Your task to perform on an android device: allow cookies in the chrome app Image 0: 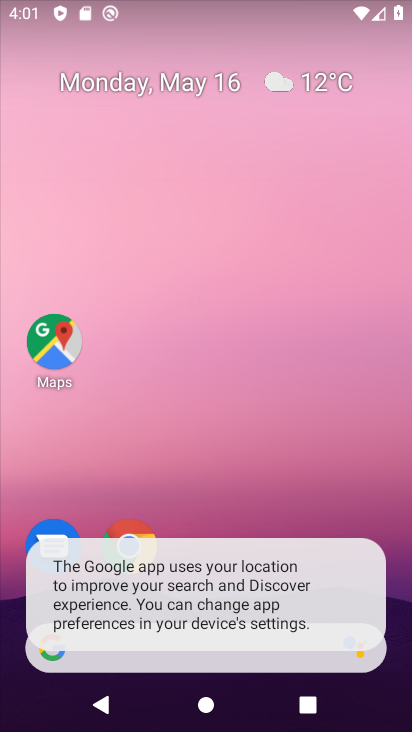
Step 0: drag from (190, 555) to (314, 65)
Your task to perform on an android device: allow cookies in the chrome app Image 1: 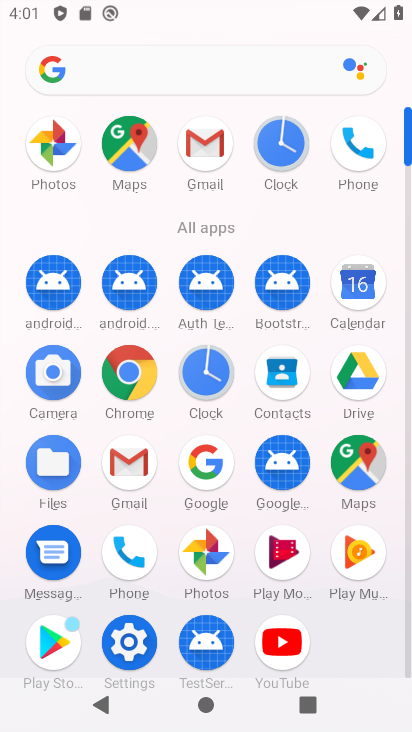
Step 1: click (144, 376)
Your task to perform on an android device: allow cookies in the chrome app Image 2: 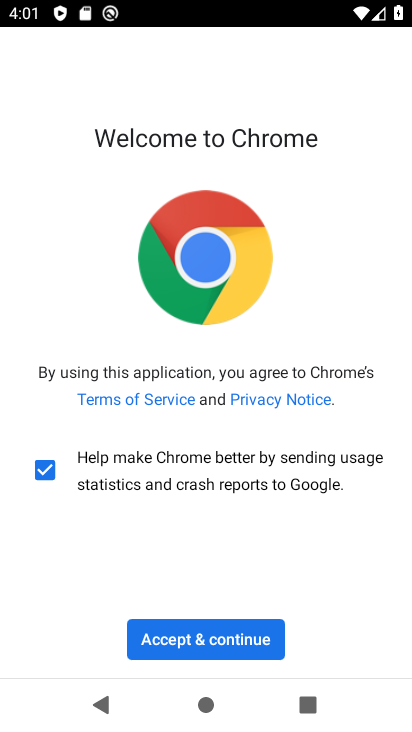
Step 2: click (218, 648)
Your task to perform on an android device: allow cookies in the chrome app Image 3: 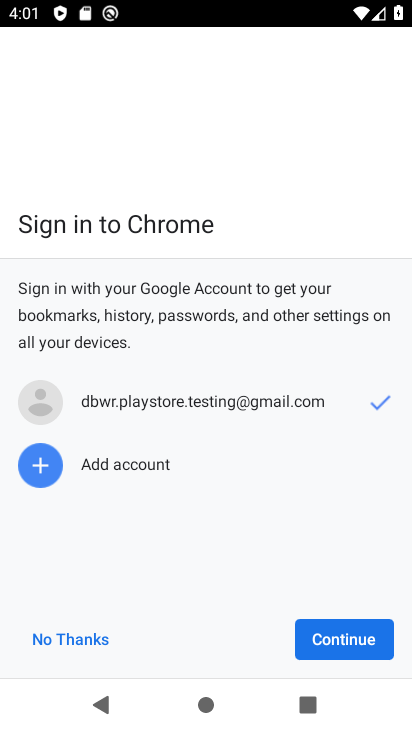
Step 3: click (333, 652)
Your task to perform on an android device: allow cookies in the chrome app Image 4: 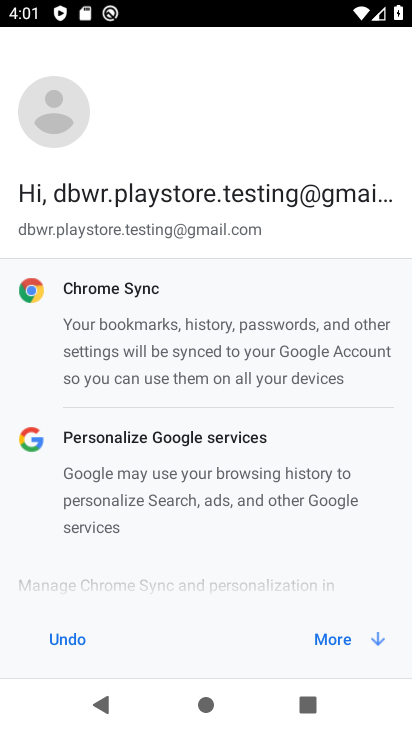
Step 4: click (332, 651)
Your task to perform on an android device: allow cookies in the chrome app Image 5: 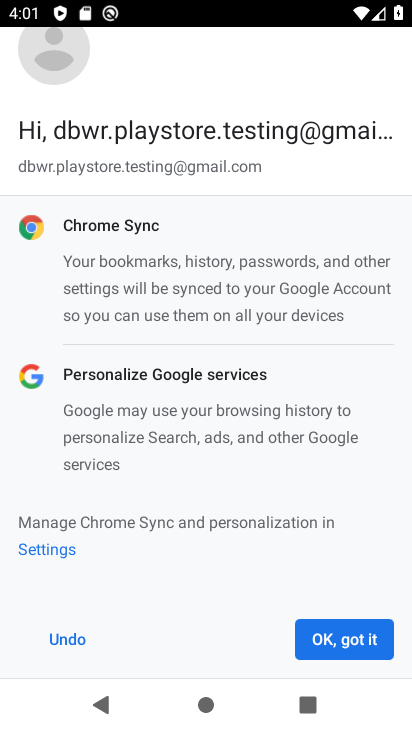
Step 5: click (332, 651)
Your task to perform on an android device: allow cookies in the chrome app Image 6: 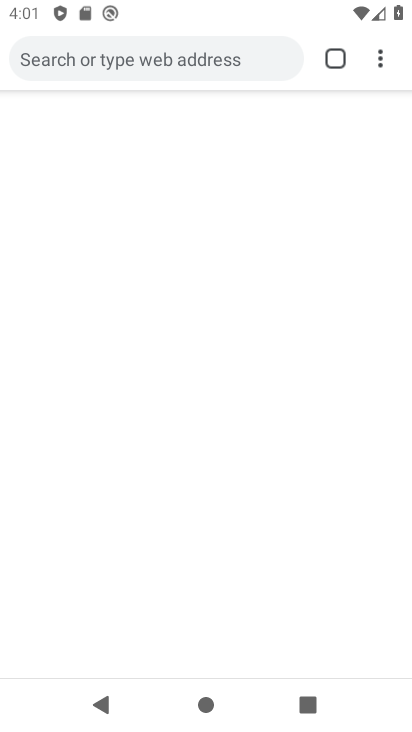
Step 6: drag from (387, 61) to (282, 502)
Your task to perform on an android device: allow cookies in the chrome app Image 7: 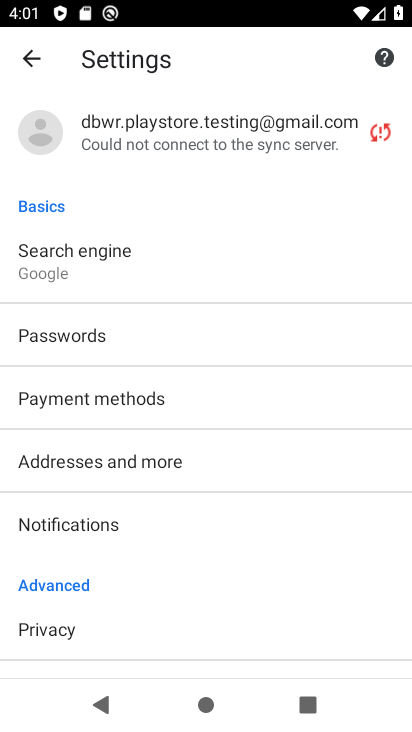
Step 7: drag from (137, 570) to (219, 257)
Your task to perform on an android device: allow cookies in the chrome app Image 8: 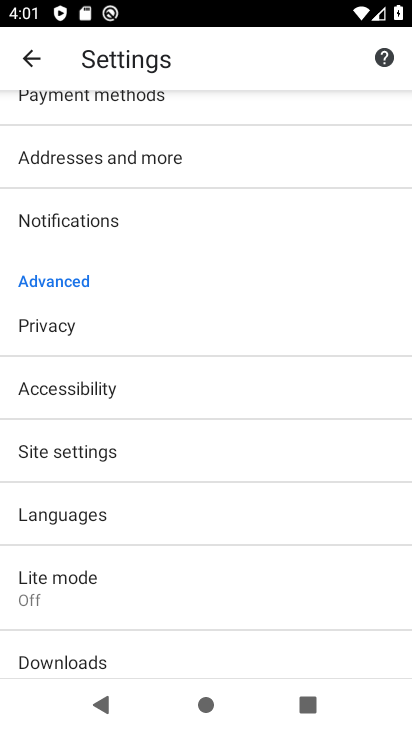
Step 8: drag from (128, 600) to (174, 456)
Your task to perform on an android device: allow cookies in the chrome app Image 9: 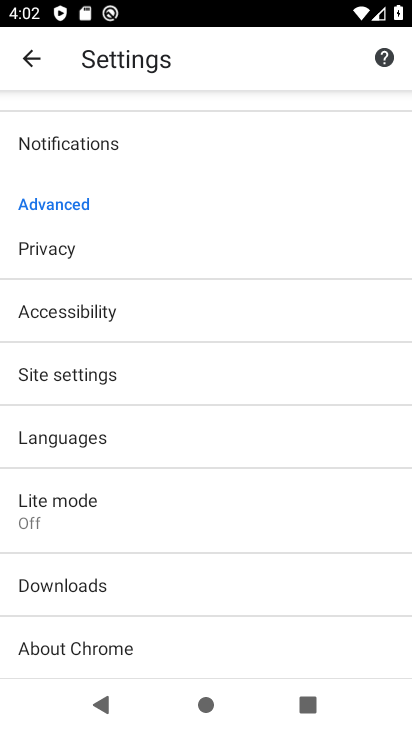
Step 9: drag from (152, 607) to (186, 456)
Your task to perform on an android device: allow cookies in the chrome app Image 10: 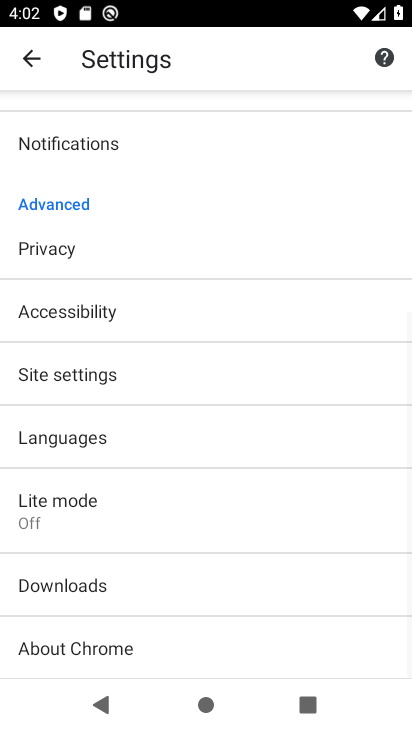
Step 10: click (201, 376)
Your task to perform on an android device: allow cookies in the chrome app Image 11: 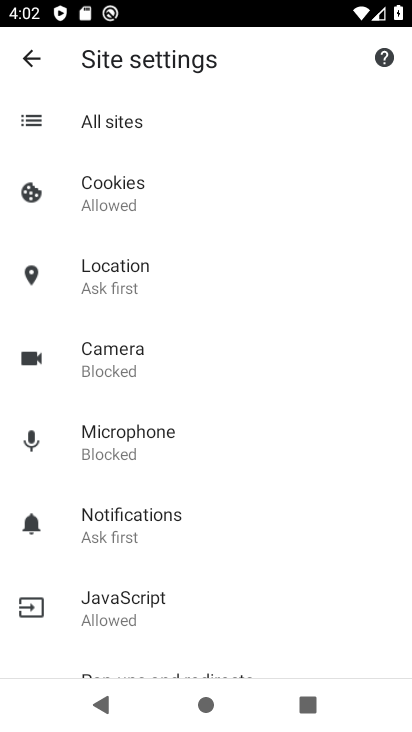
Step 11: click (201, 195)
Your task to perform on an android device: allow cookies in the chrome app Image 12: 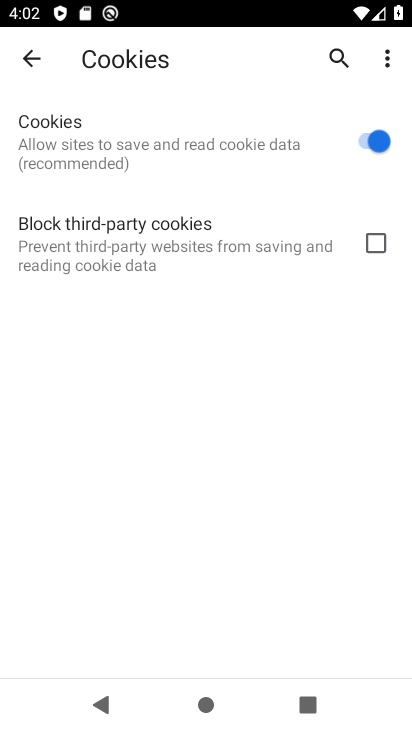
Step 12: task complete